Your task to perform on an android device: Clear the cart on ebay.com. Add usb-c to the cart on ebay.com, then select checkout. Image 0: 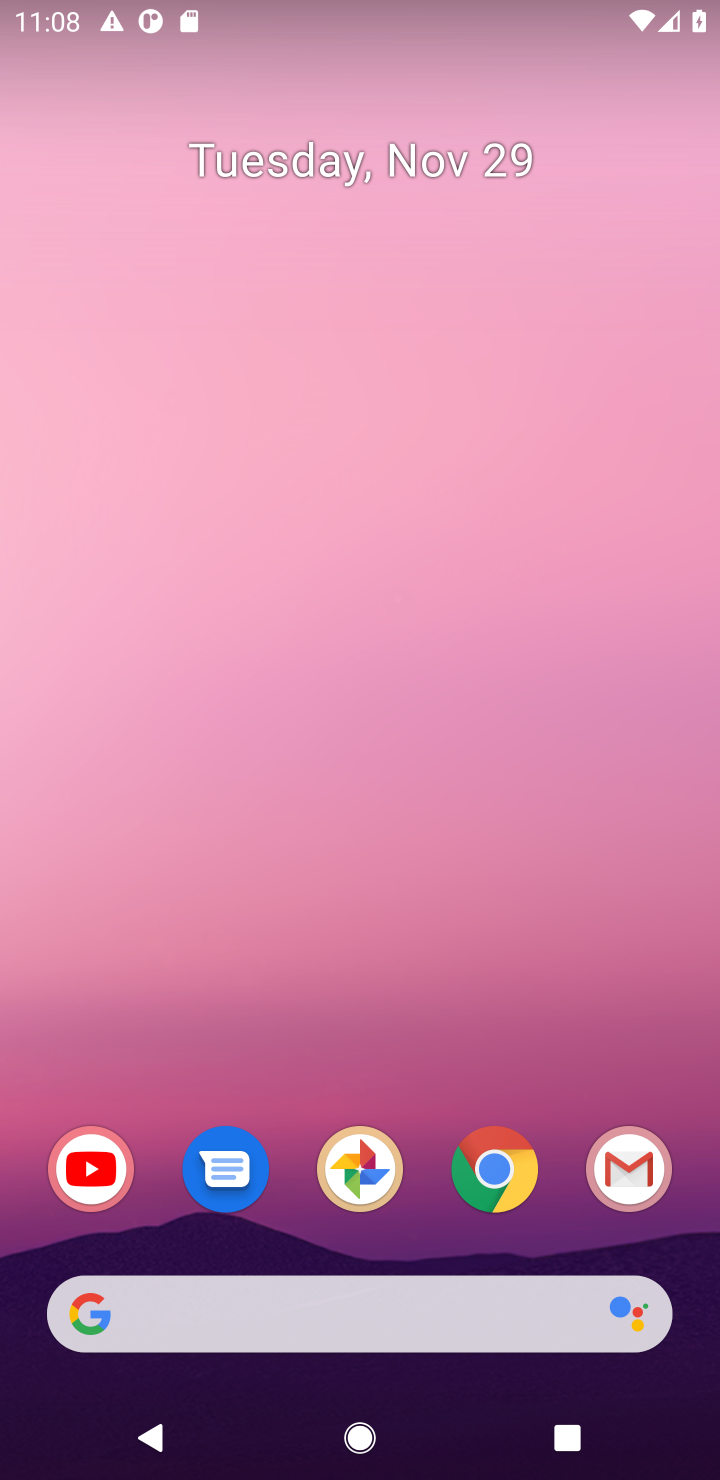
Step 0: click (307, 1315)
Your task to perform on an android device: Clear the cart on ebay.com. Add usb-c to the cart on ebay.com, then select checkout. Image 1: 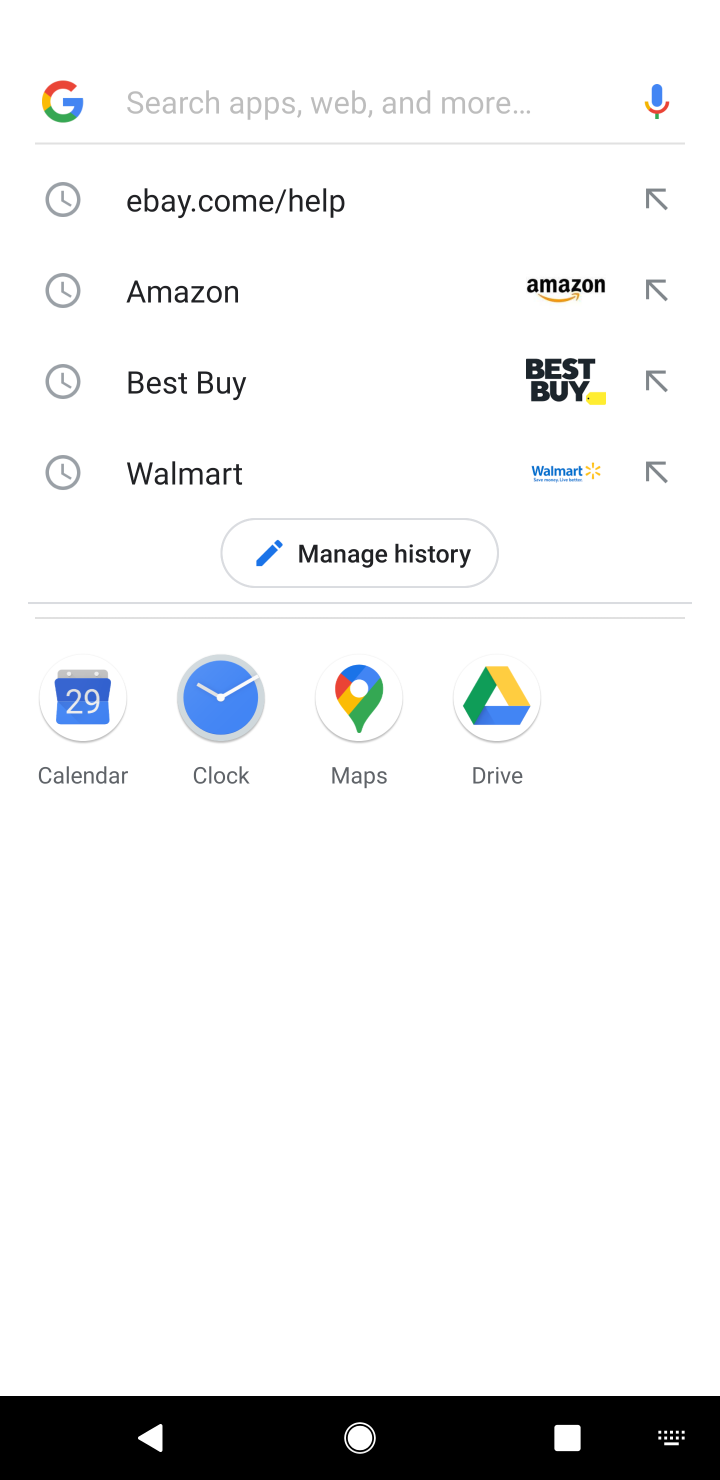
Step 1: type "ebay.com"
Your task to perform on an android device: Clear the cart on ebay.com. Add usb-c to the cart on ebay.com, then select checkout. Image 2: 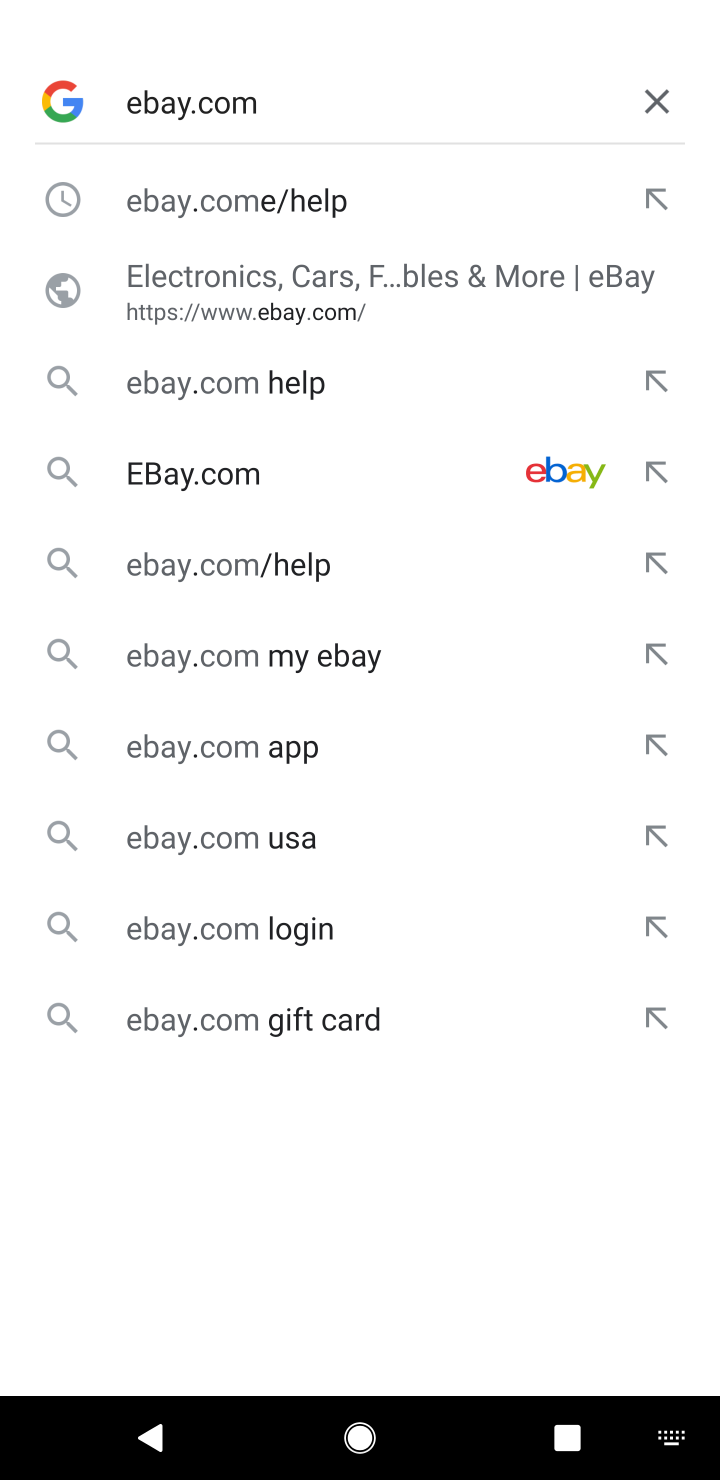
Step 2: click (234, 286)
Your task to perform on an android device: Clear the cart on ebay.com. Add usb-c to the cart on ebay.com, then select checkout. Image 3: 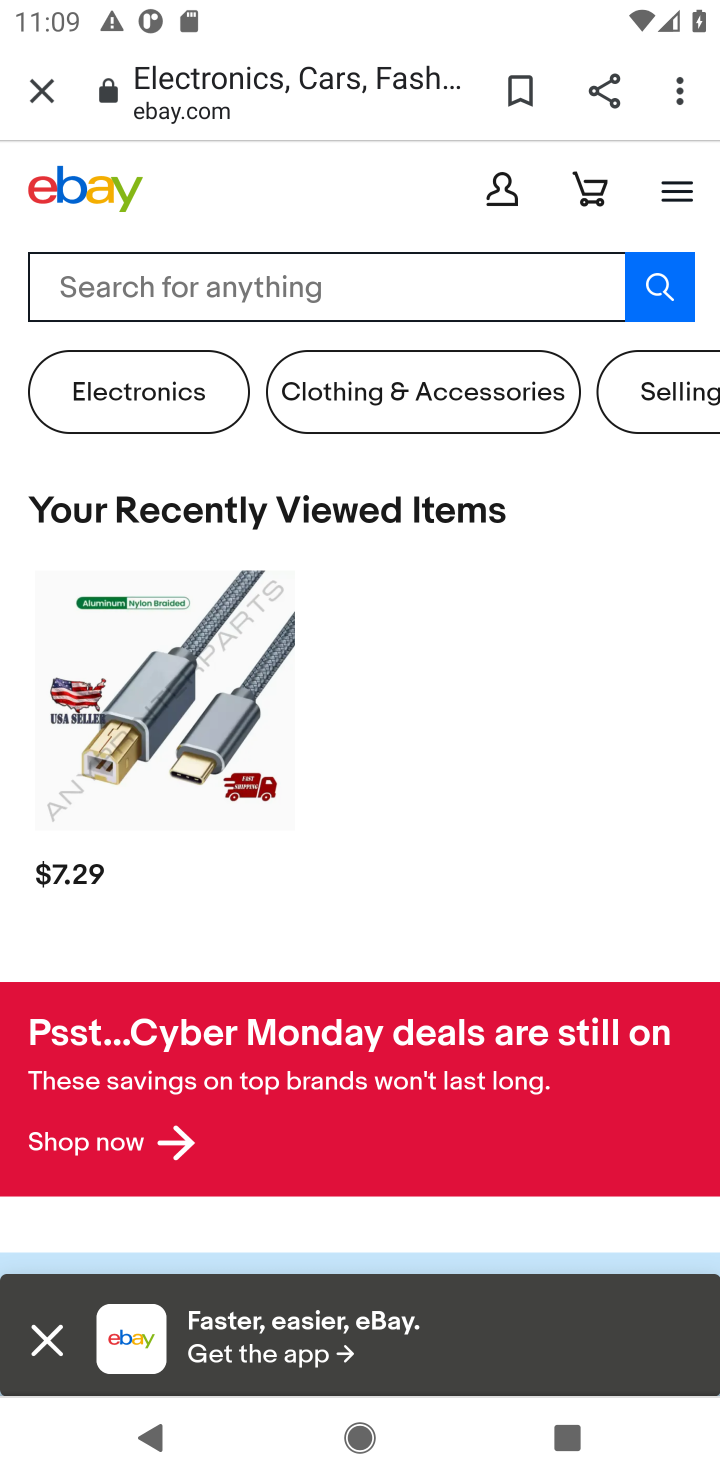
Step 3: click (234, 286)
Your task to perform on an android device: Clear the cart on ebay.com. Add usb-c to the cart on ebay.com, then select checkout. Image 4: 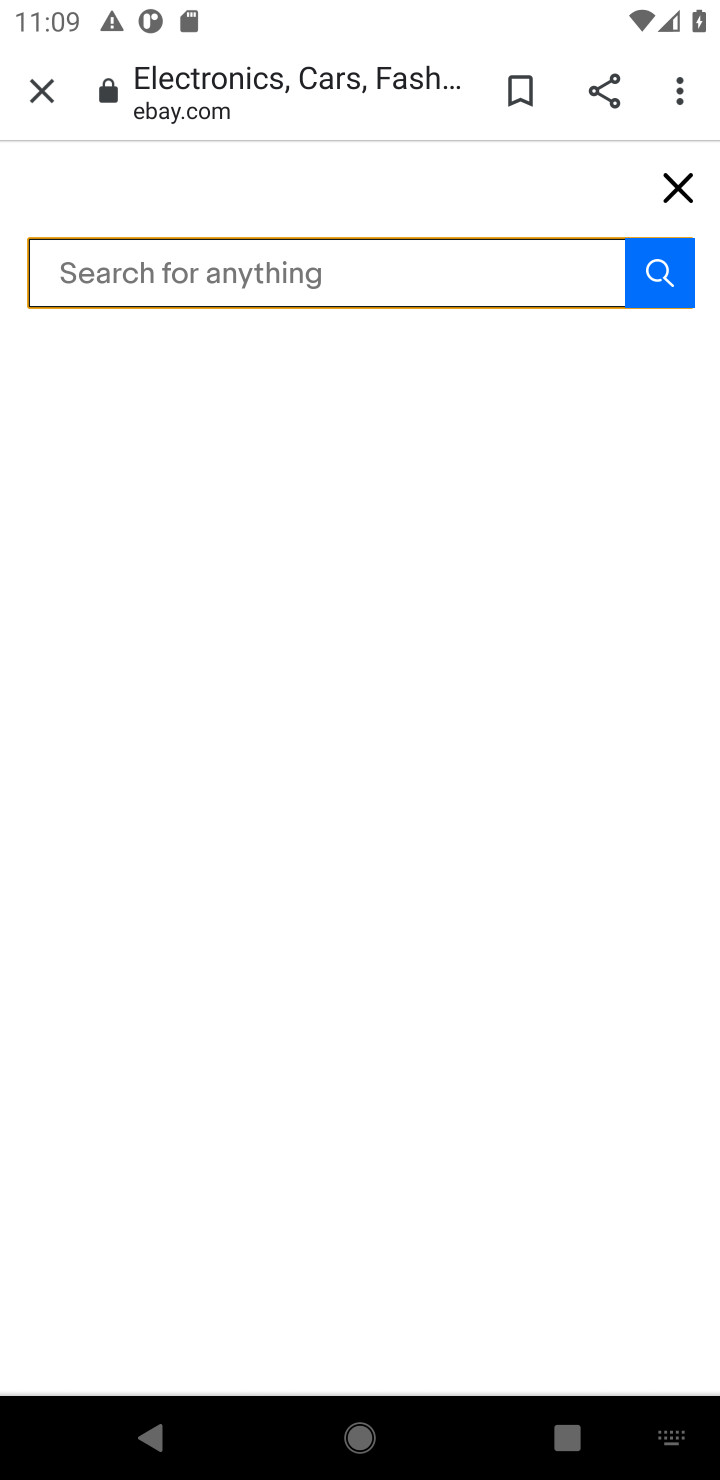
Step 4: type "usb-c"
Your task to perform on an android device: Clear the cart on ebay.com. Add usb-c to the cart on ebay.com, then select checkout. Image 5: 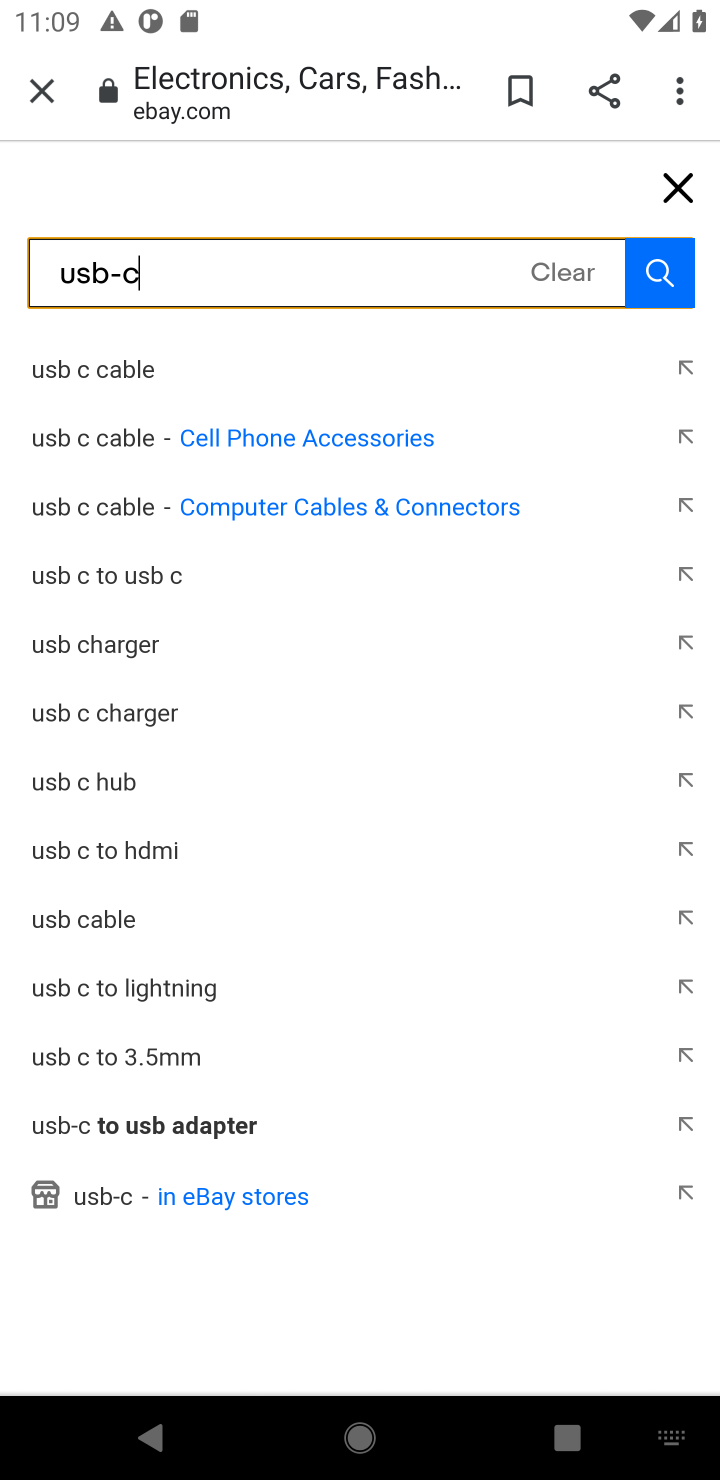
Step 5: click (666, 281)
Your task to perform on an android device: Clear the cart on ebay.com. Add usb-c to the cart on ebay.com, then select checkout. Image 6: 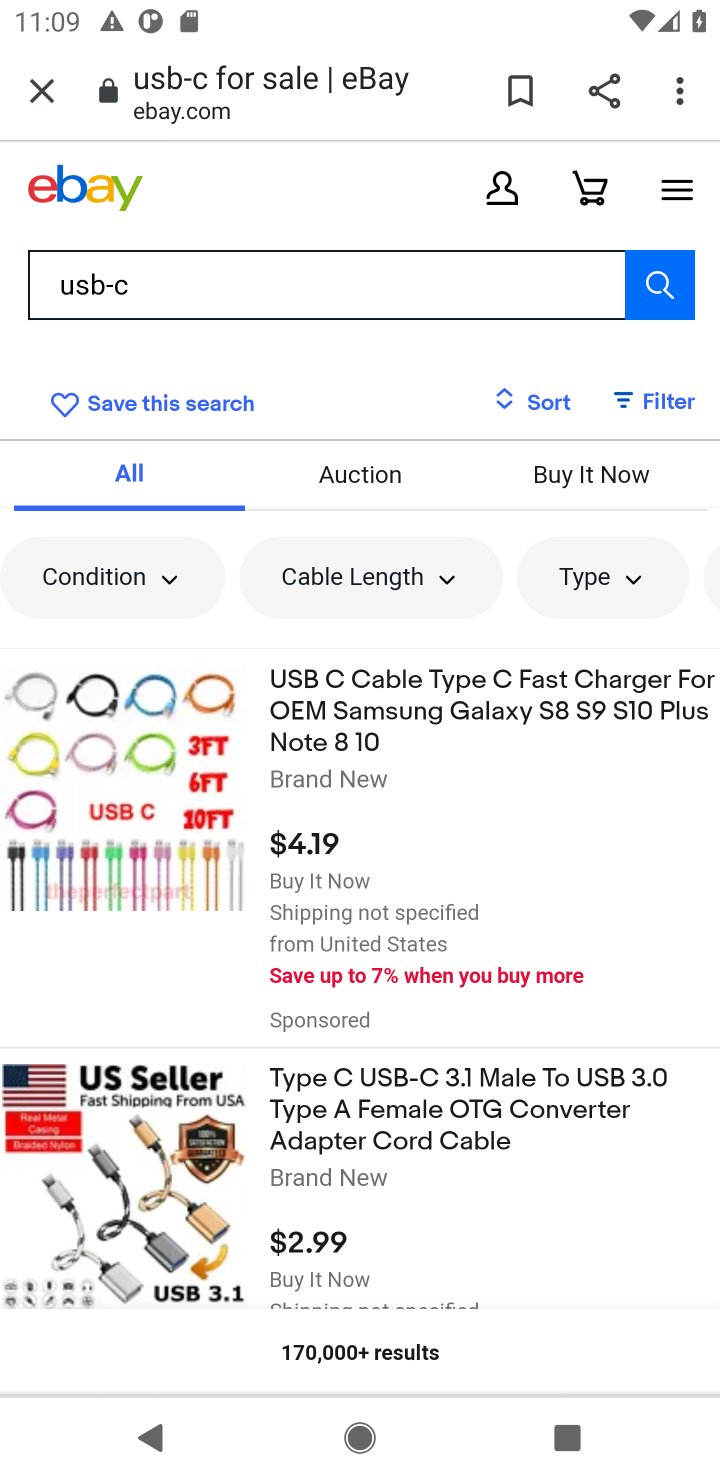
Step 6: click (328, 736)
Your task to perform on an android device: Clear the cart on ebay.com. Add usb-c to the cart on ebay.com, then select checkout. Image 7: 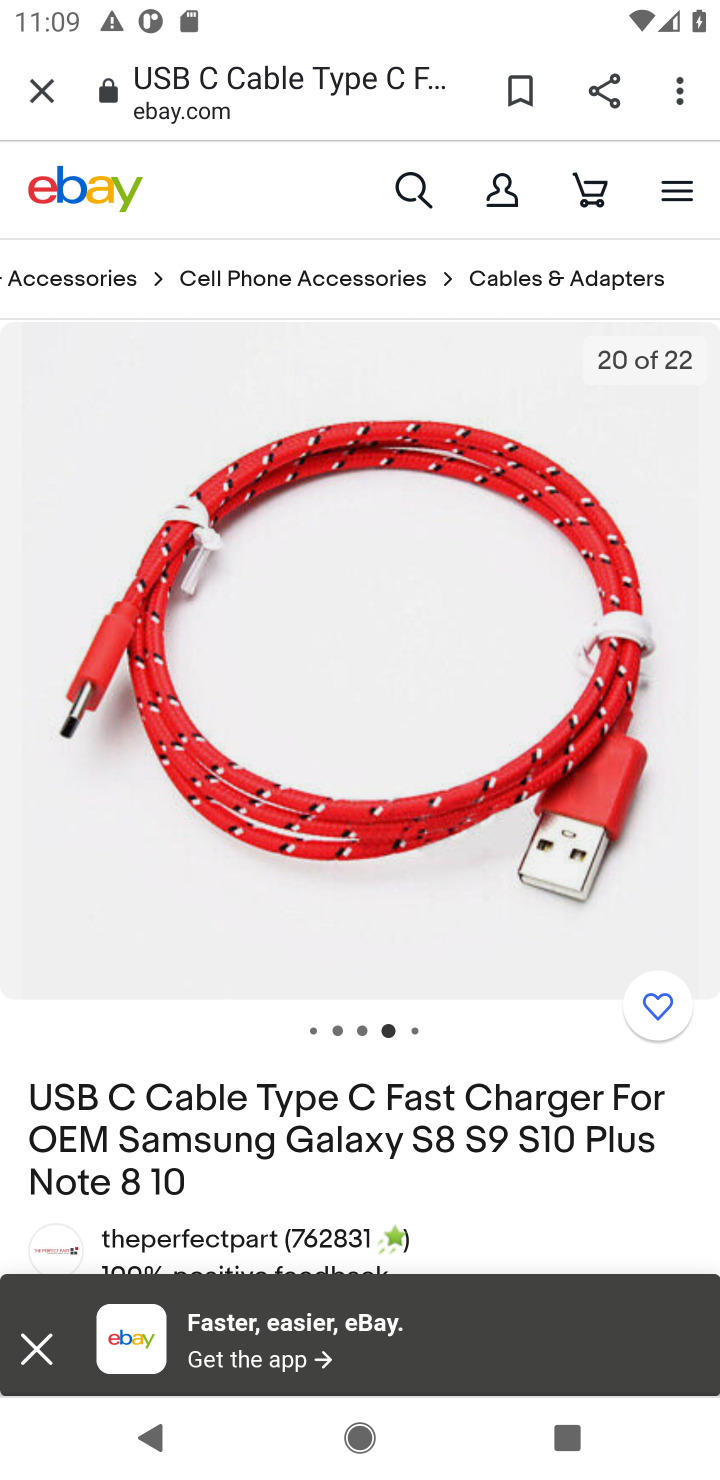
Step 7: drag from (425, 1240) to (425, 595)
Your task to perform on an android device: Clear the cart on ebay.com. Add usb-c to the cart on ebay.com, then select checkout. Image 8: 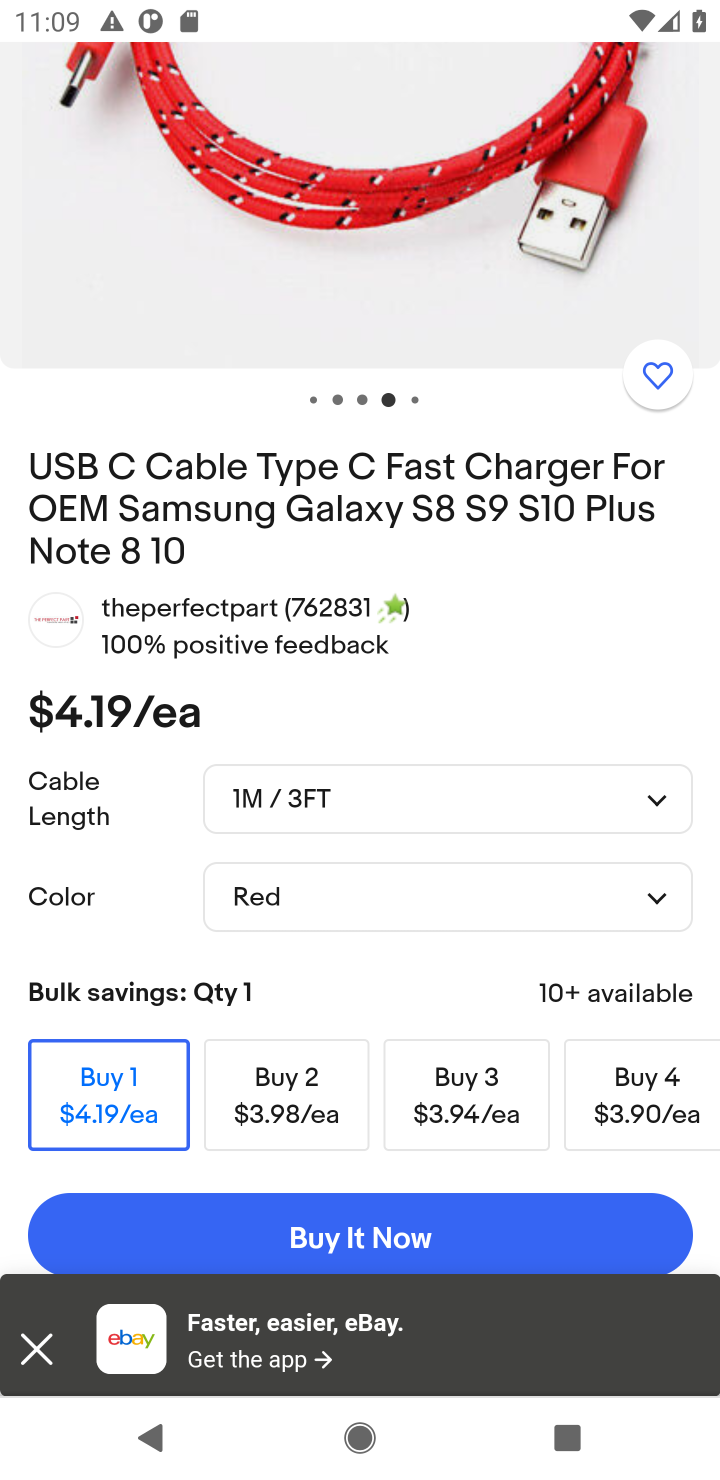
Step 8: drag from (405, 1222) to (395, 878)
Your task to perform on an android device: Clear the cart on ebay.com. Add usb-c to the cart on ebay.com, then select checkout. Image 9: 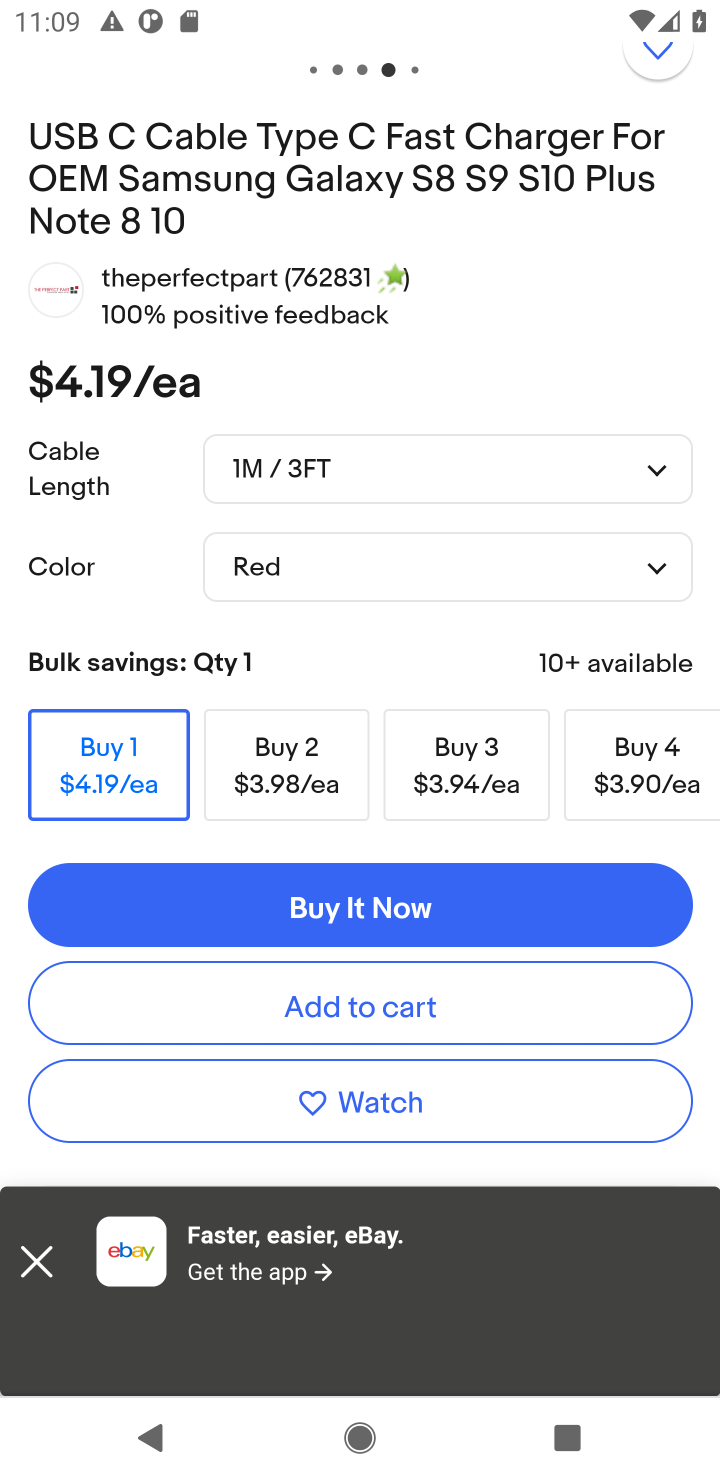
Step 9: click (390, 1266)
Your task to perform on an android device: Clear the cart on ebay.com. Add usb-c to the cart on ebay.com, then select checkout. Image 10: 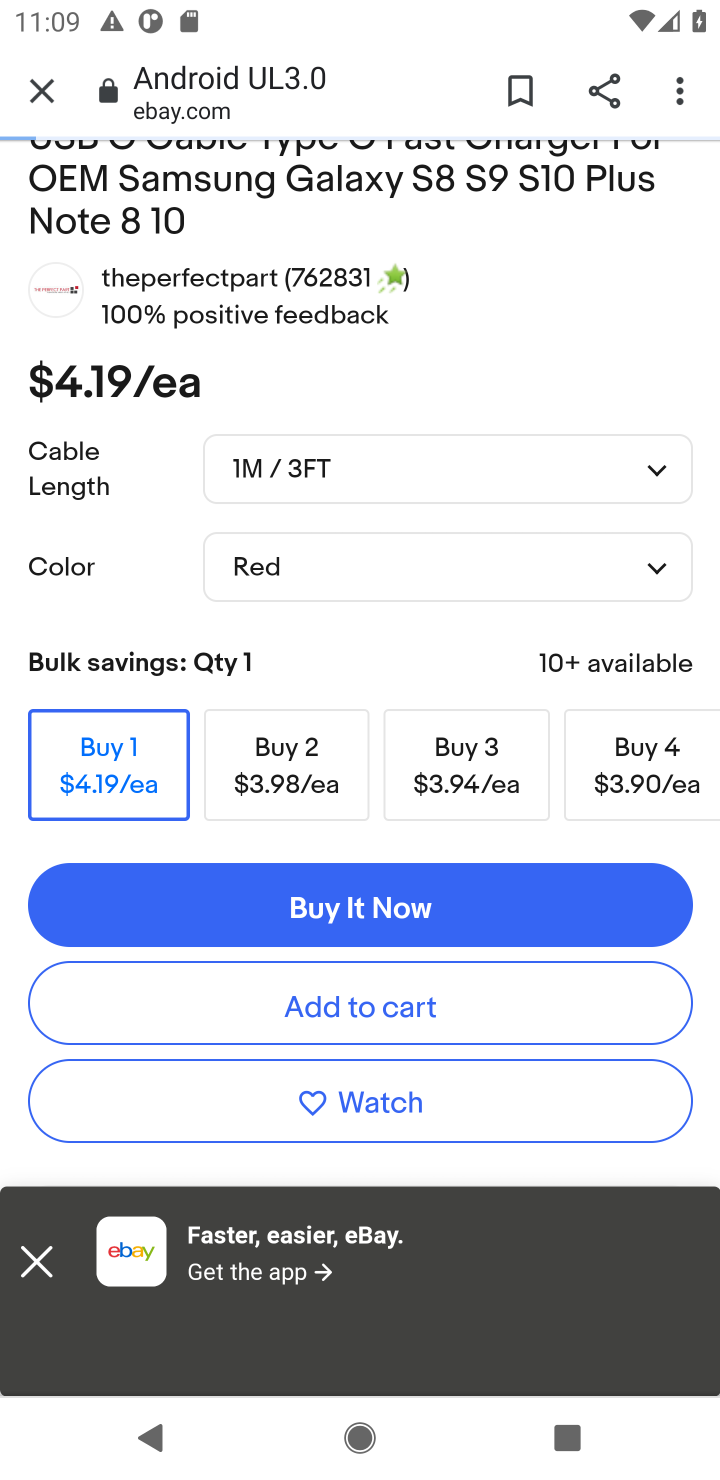
Step 10: task complete